Your task to perform on an android device: Search for razer thresher on target.com, select the first entry, and add it to the cart. Image 0: 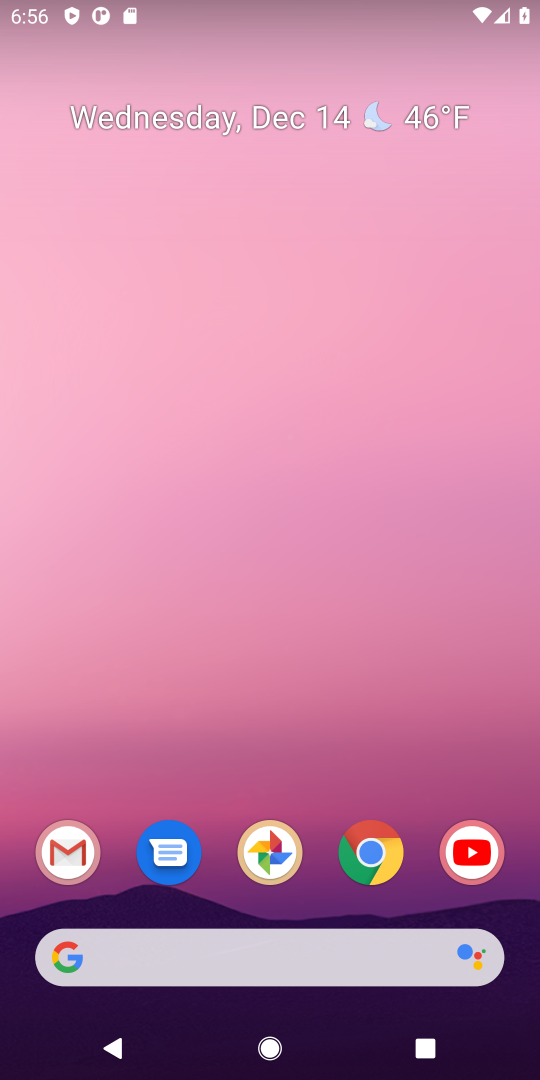
Step 0: click (361, 861)
Your task to perform on an android device: Search for razer thresher on target.com, select the first entry, and add it to the cart. Image 1: 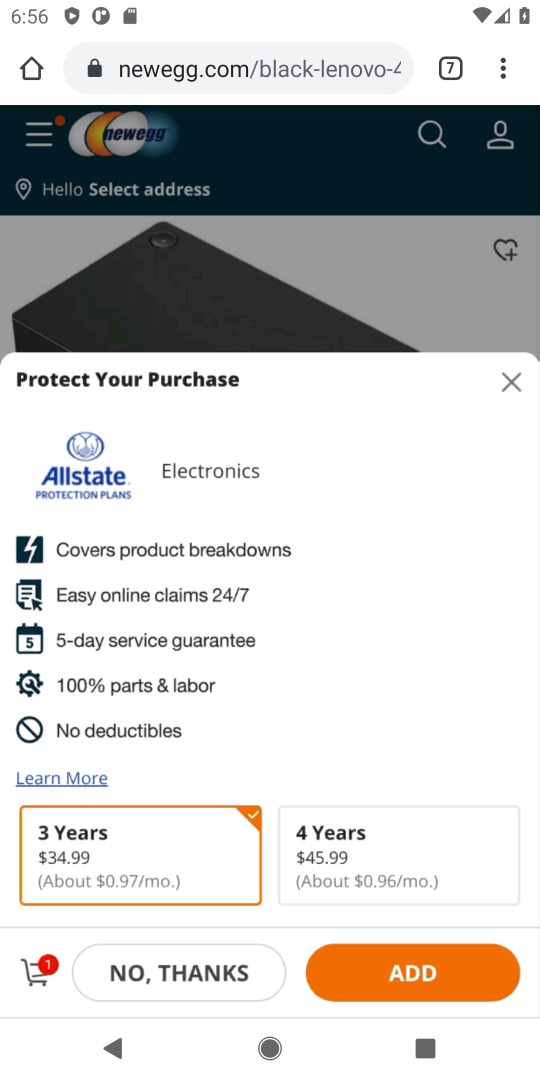
Step 1: click (460, 72)
Your task to perform on an android device: Search for razer thresher on target.com, select the first entry, and add it to the cart. Image 2: 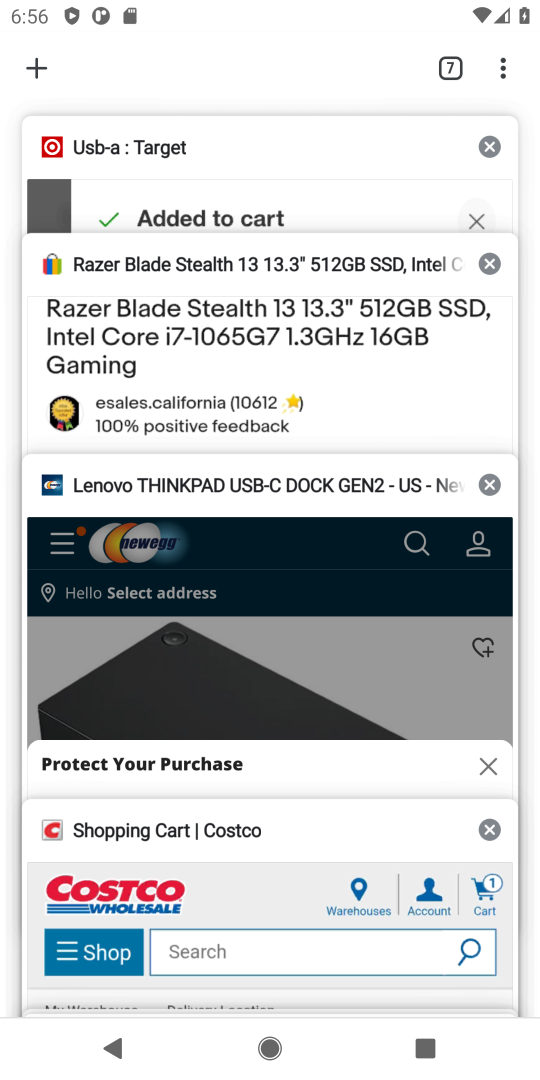
Step 2: click (206, 168)
Your task to perform on an android device: Search for razer thresher on target.com, select the first entry, and add it to the cart. Image 3: 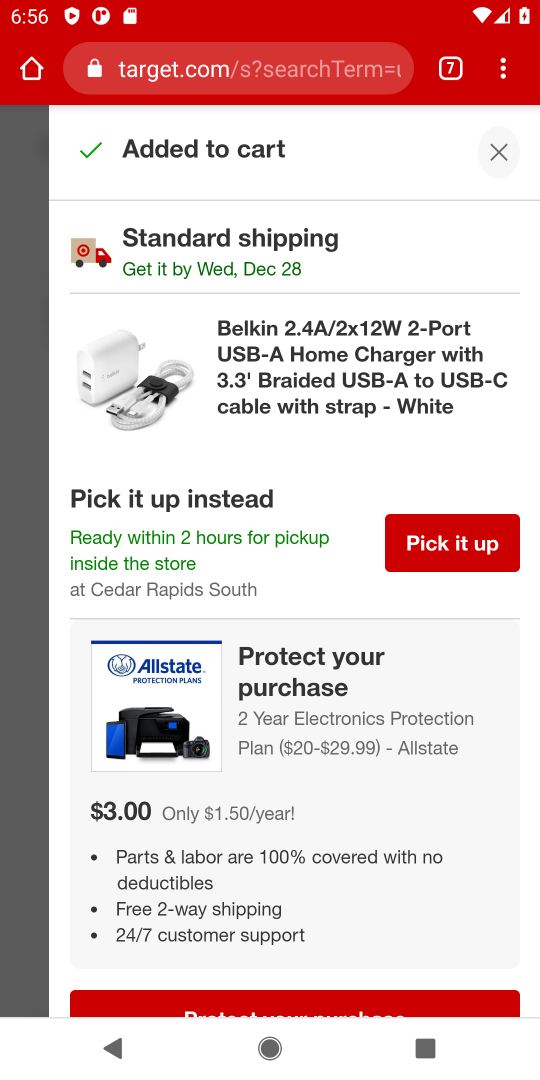
Step 3: click (501, 148)
Your task to perform on an android device: Search for razer thresher on target.com, select the first entry, and add it to the cart. Image 4: 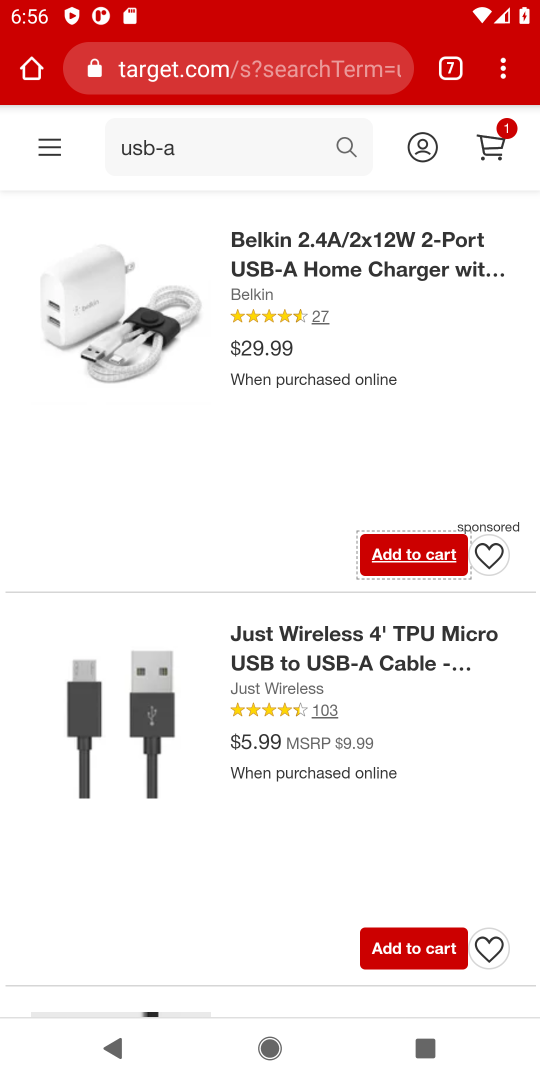
Step 4: click (228, 145)
Your task to perform on an android device: Search for razer thresher on target.com, select the first entry, and add it to the cart. Image 5: 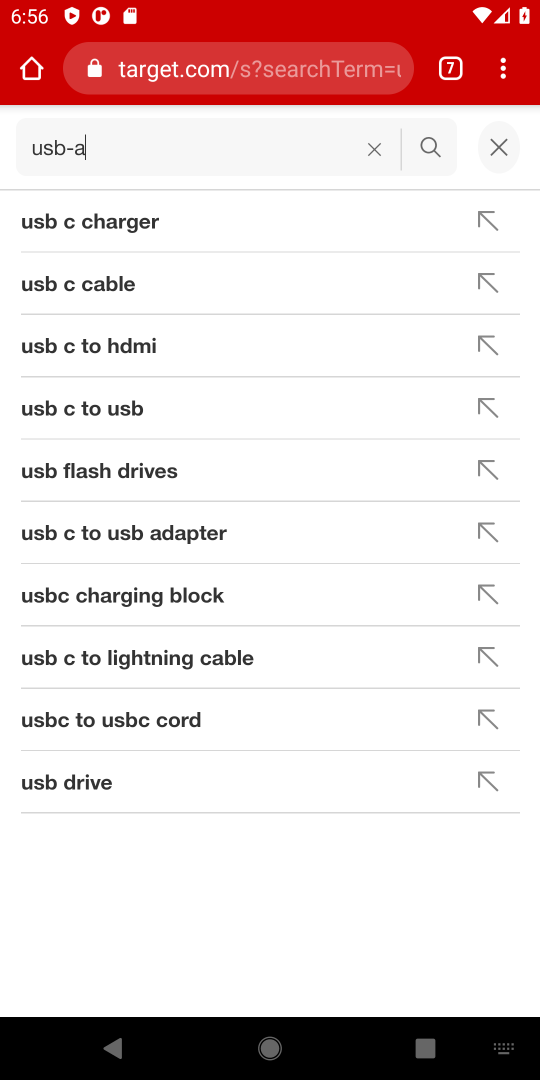
Step 5: click (373, 144)
Your task to perform on an android device: Search for razer thresher on target.com, select the first entry, and add it to the cart. Image 6: 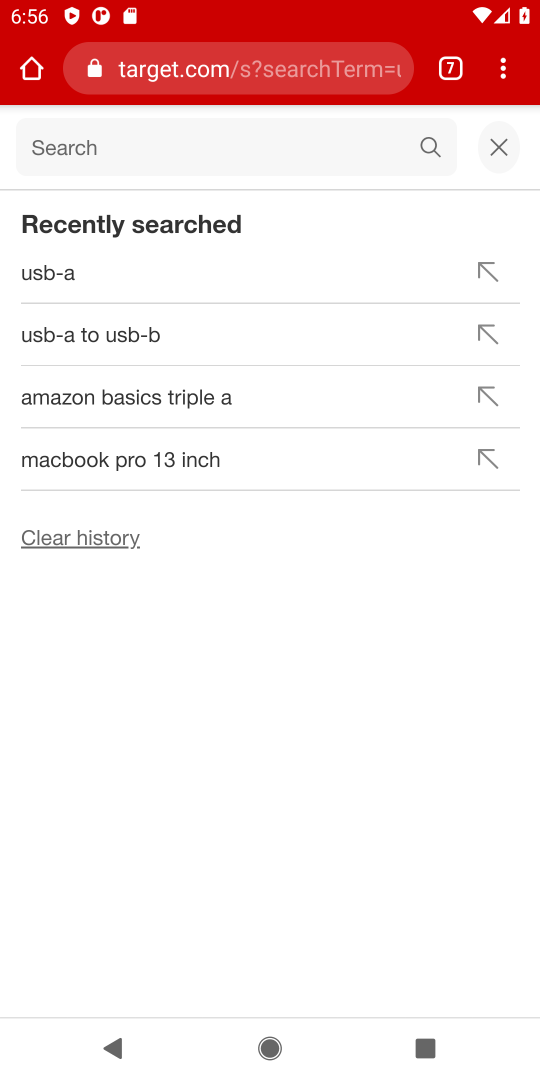
Step 6: click (81, 144)
Your task to perform on an android device: Search for razer thresher on target.com, select the first entry, and add it to the cart. Image 7: 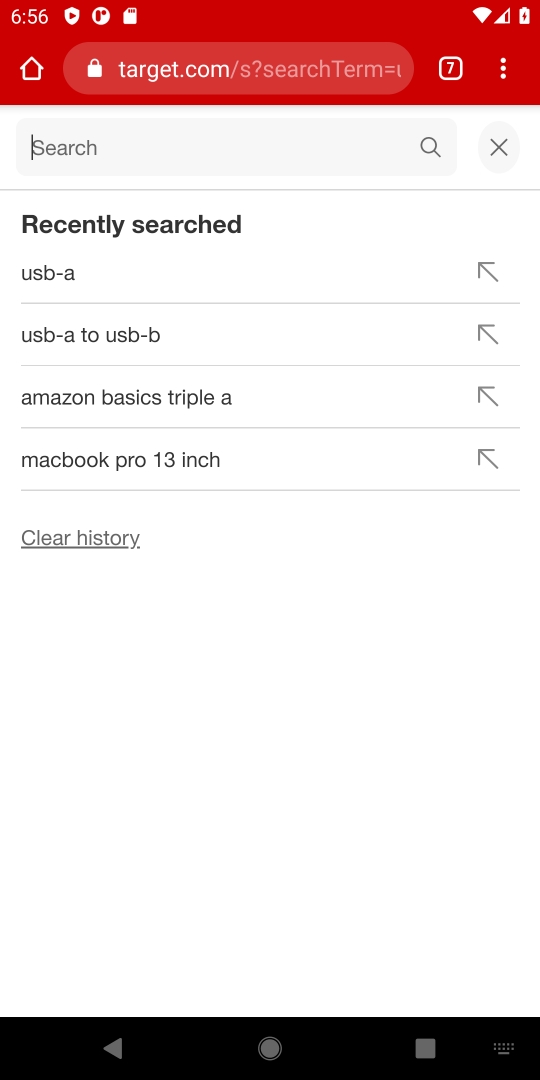
Step 7: type "razer thresher"
Your task to perform on an android device: Search for razer thresher on target.com, select the first entry, and add it to the cart. Image 8: 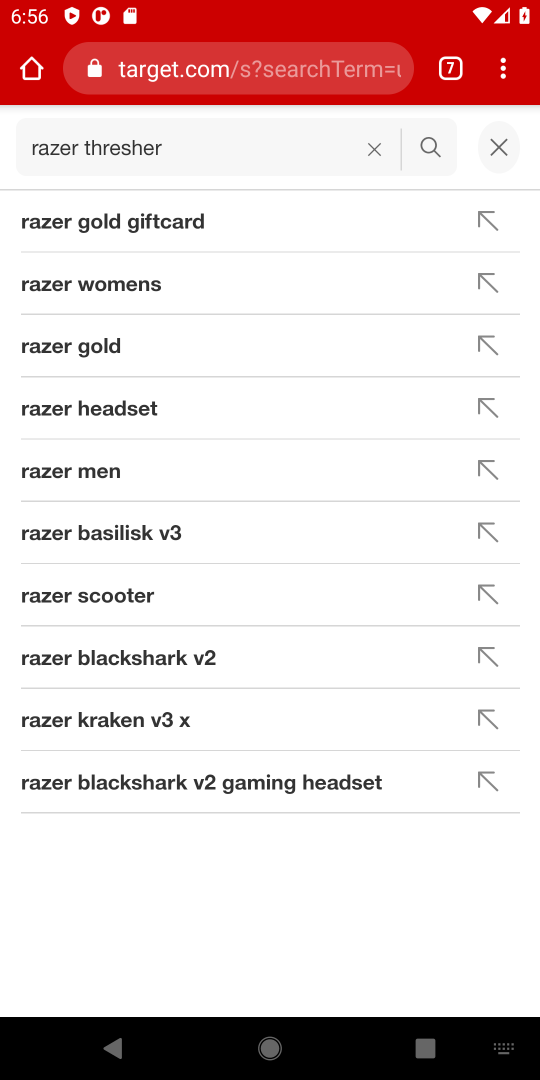
Step 8: click (432, 151)
Your task to perform on an android device: Search for razer thresher on target.com, select the first entry, and add it to the cart. Image 9: 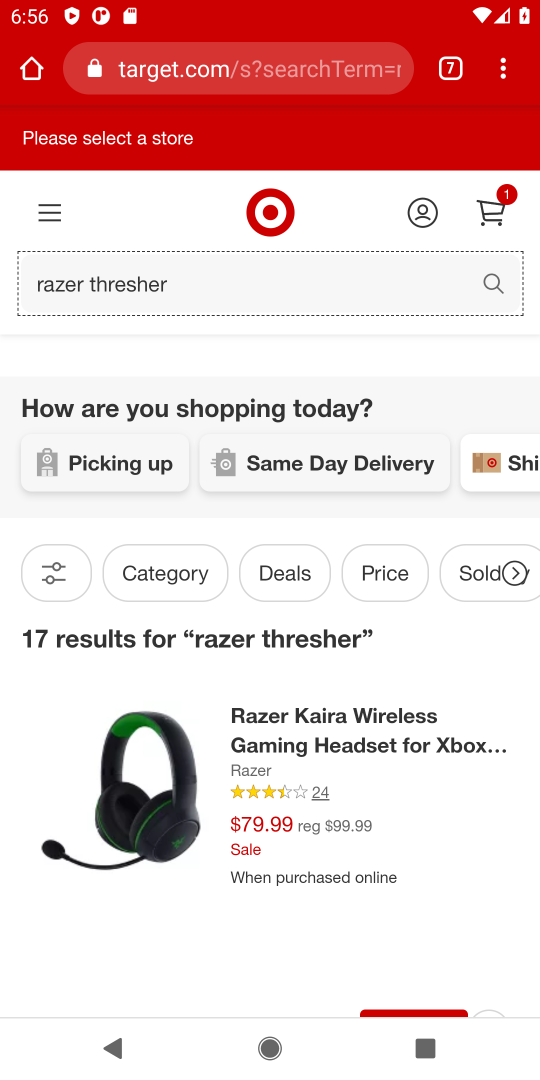
Step 9: task complete